Your task to perform on an android device: turn off airplane mode Image 0: 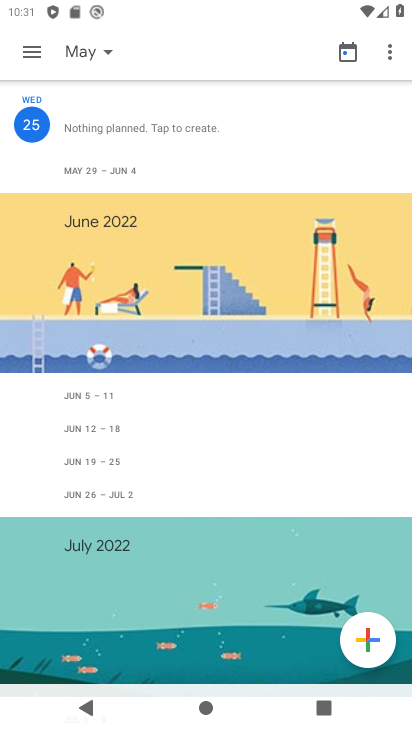
Step 0: press home button
Your task to perform on an android device: turn off airplane mode Image 1: 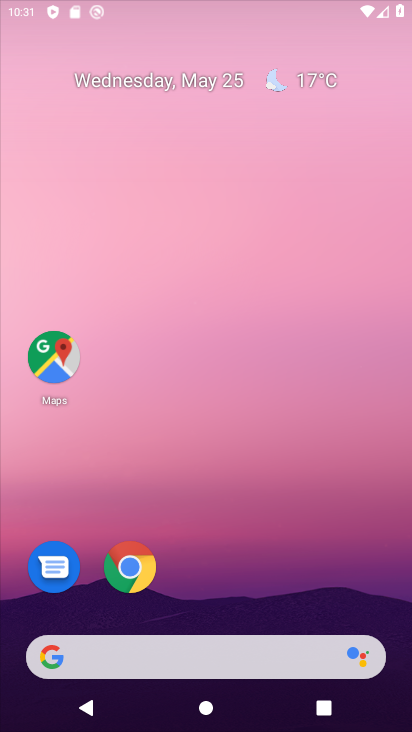
Step 1: task complete